Your task to perform on an android device: Open the Play Movies app and select the watchlist tab. Image 0: 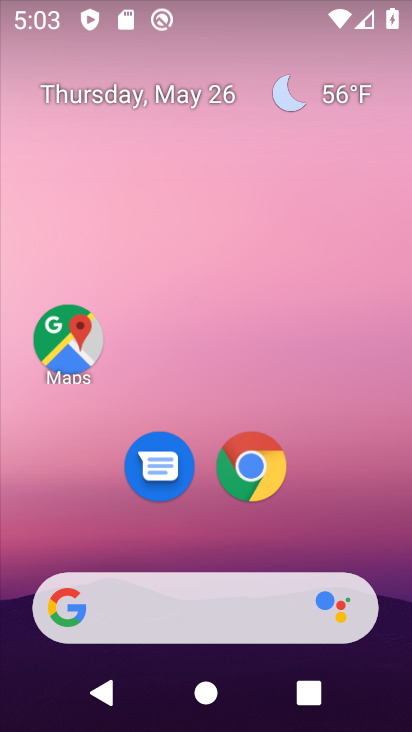
Step 0: drag from (333, 524) to (365, 202)
Your task to perform on an android device: Open the Play Movies app and select the watchlist tab. Image 1: 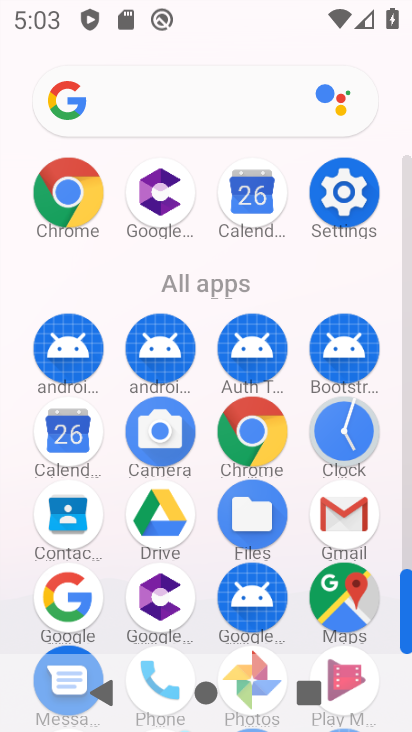
Step 1: drag from (296, 444) to (302, 97)
Your task to perform on an android device: Open the Play Movies app and select the watchlist tab. Image 2: 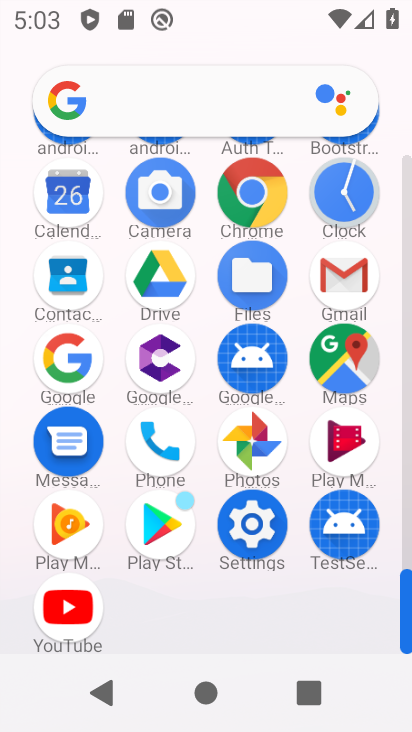
Step 2: click (341, 429)
Your task to perform on an android device: Open the Play Movies app and select the watchlist tab. Image 3: 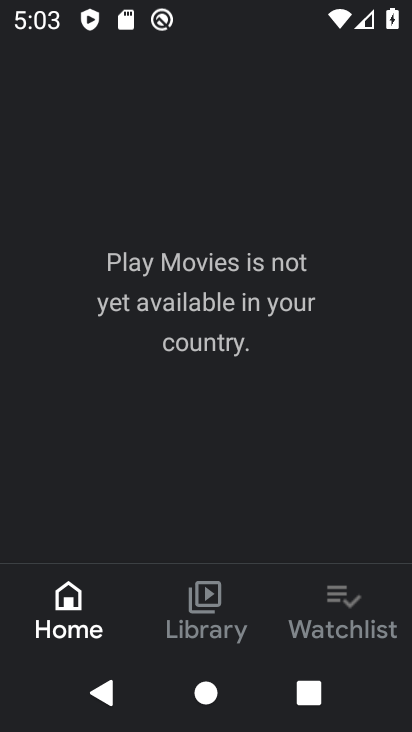
Step 3: click (343, 611)
Your task to perform on an android device: Open the Play Movies app and select the watchlist tab. Image 4: 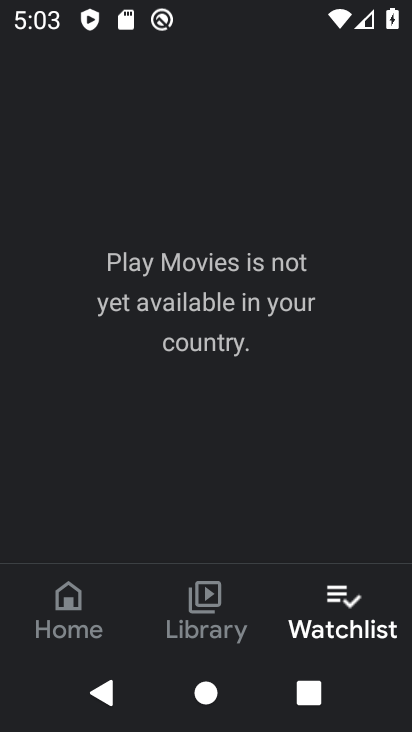
Step 4: task complete